Your task to perform on an android device: Open Amazon Image 0: 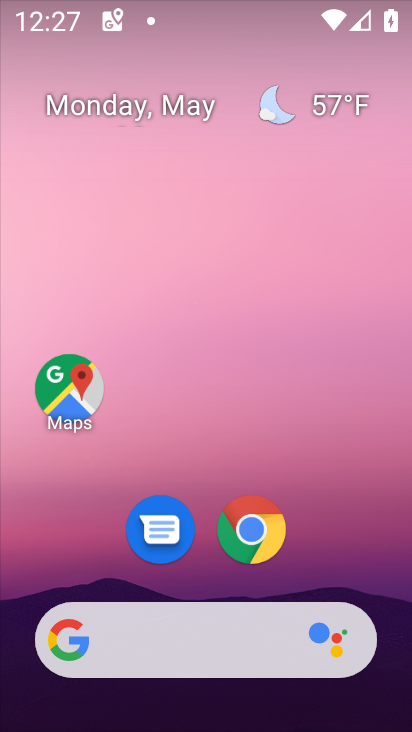
Step 0: click (252, 528)
Your task to perform on an android device: Open Amazon Image 1: 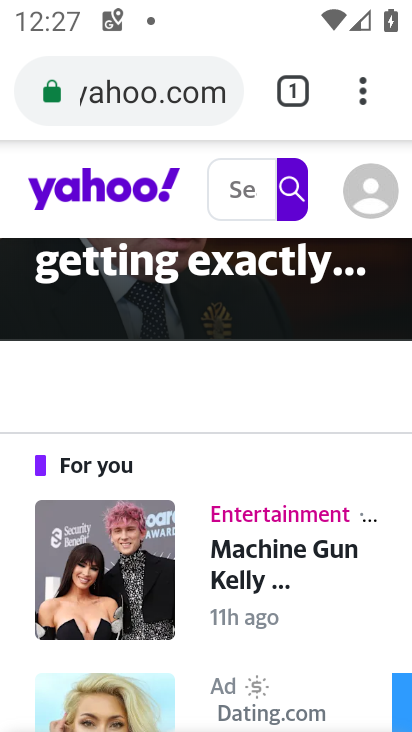
Step 1: click (177, 109)
Your task to perform on an android device: Open Amazon Image 2: 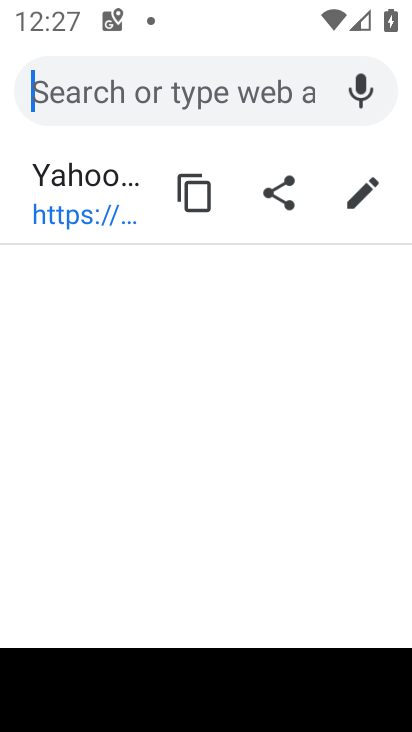
Step 2: type "Amazon"
Your task to perform on an android device: Open Amazon Image 3: 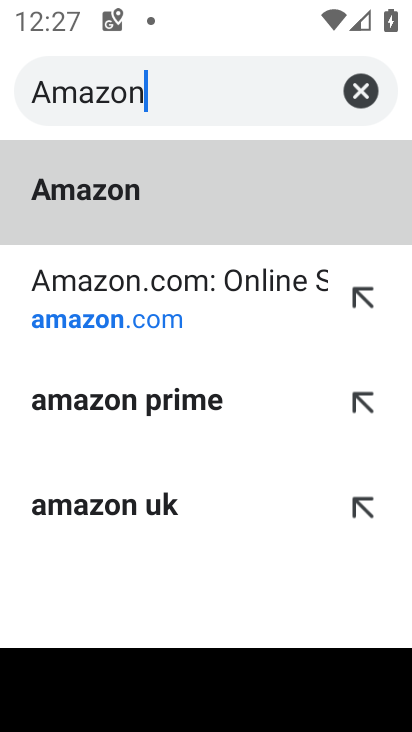
Step 3: click (100, 189)
Your task to perform on an android device: Open Amazon Image 4: 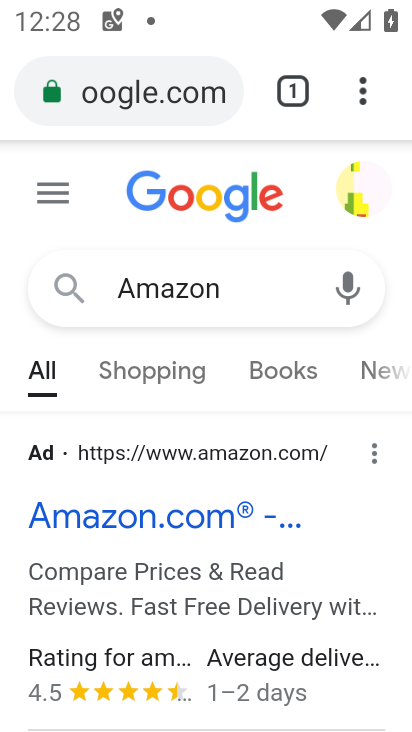
Step 4: click (118, 532)
Your task to perform on an android device: Open Amazon Image 5: 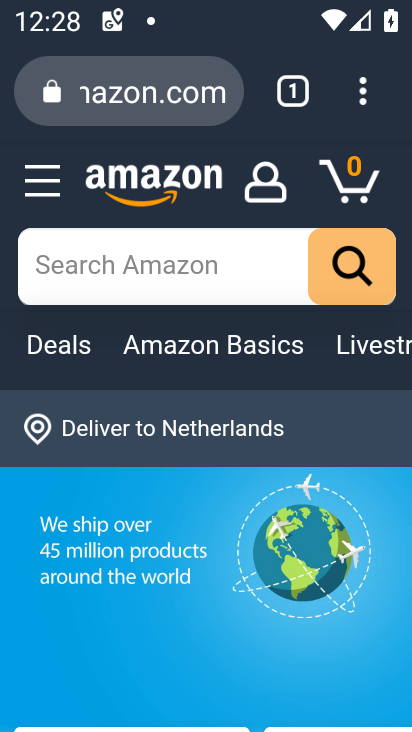
Step 5: task complete